Your task to perform on an android device: Turn off the flashlight Image 0: 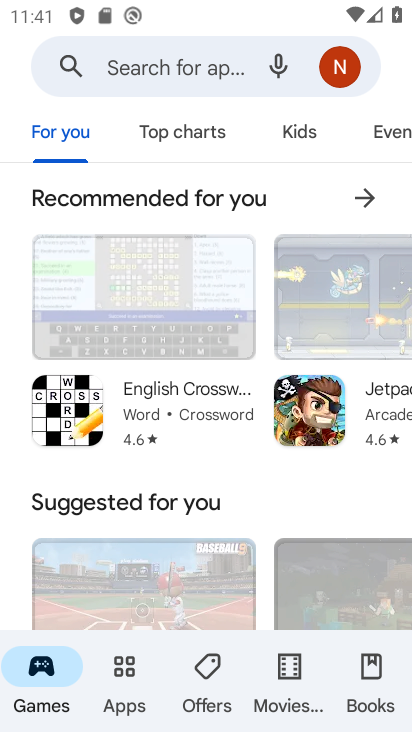
Step 0: press home button
Your task to perform on an android device: Turn off the flashlight Image 1: 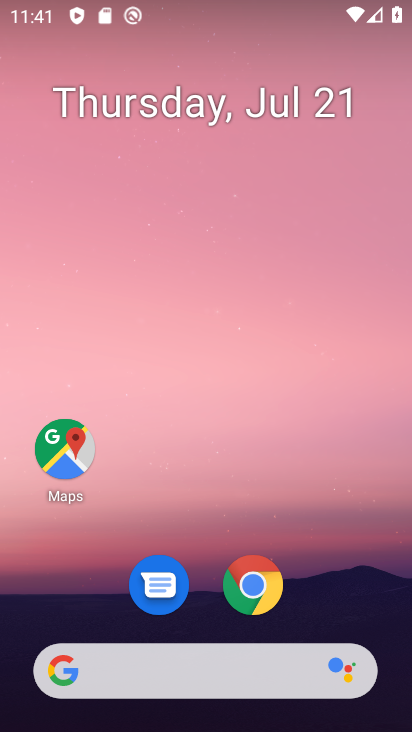
Step 1: task complete